Your task to perform on an android device: Go to accessibility settings Image 0: 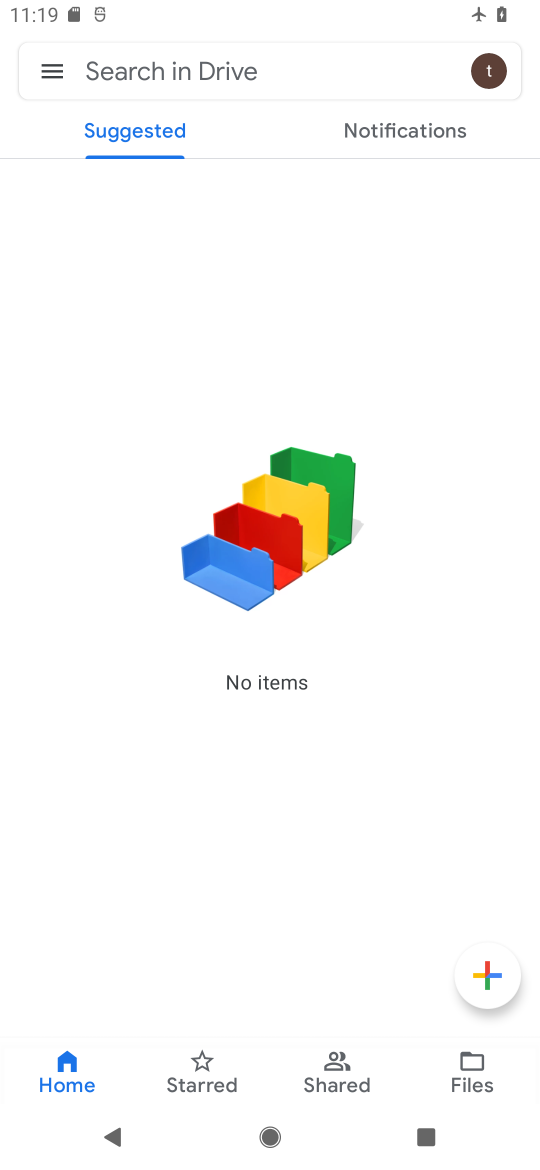
Step 0: press home button
Your task to perform on an android device: Go to accessibility settings Image 1: 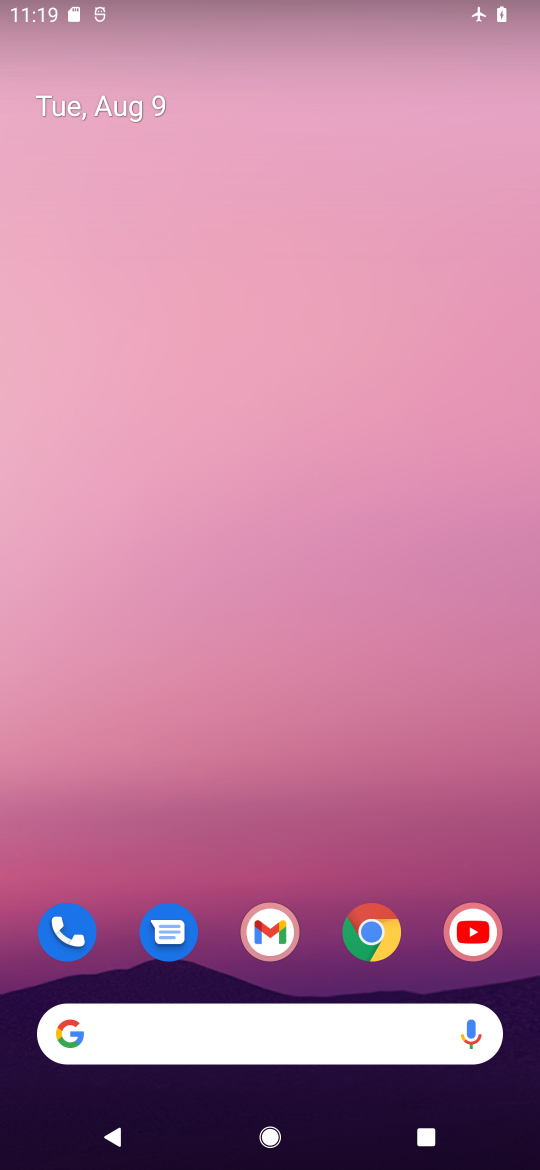
Step 1: drag from (209, 866) to (262, 2)
Your task to perform on an android device: Go to accessibility settings Image 2: 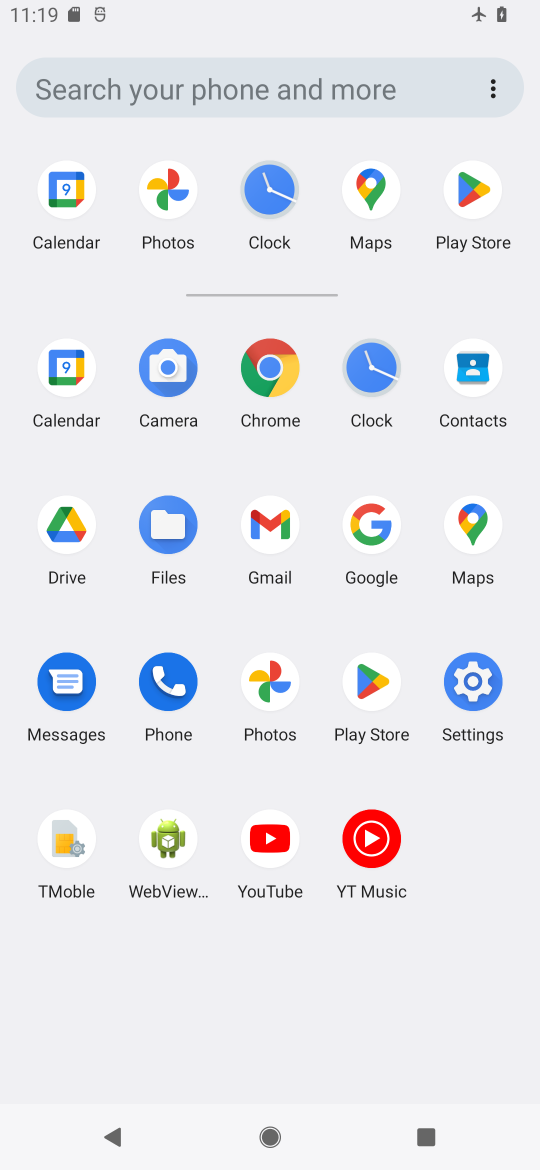
Step 2: click (466, 696)
Your task to perform on an android device: Go to accessibility settings Image 3: 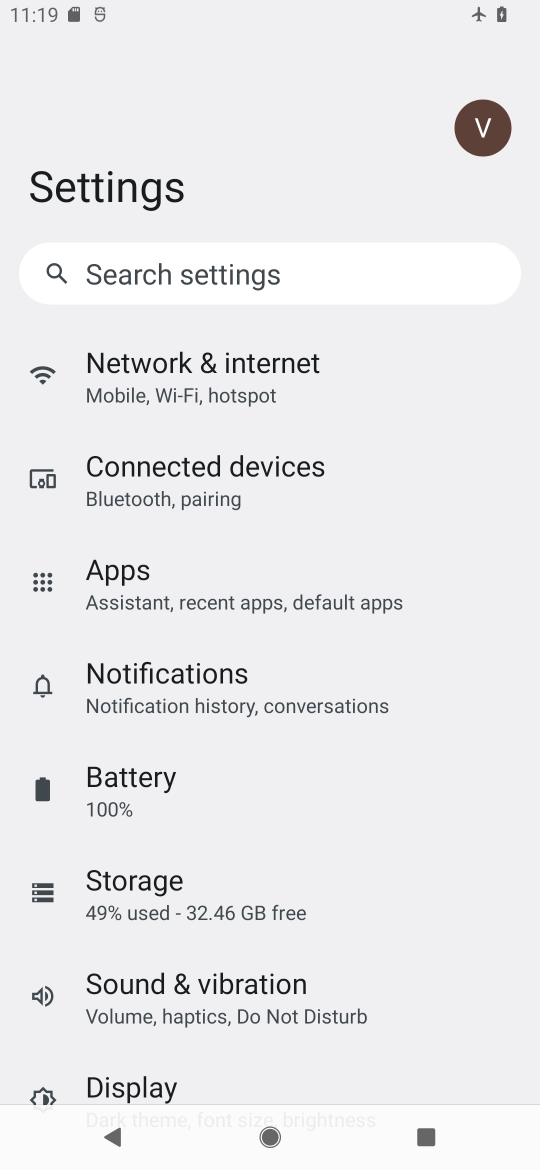
Step 3: drag from (178, 934) to (312, 292)
Your task to perform on an android device: Go to accessibility settings Image 4: 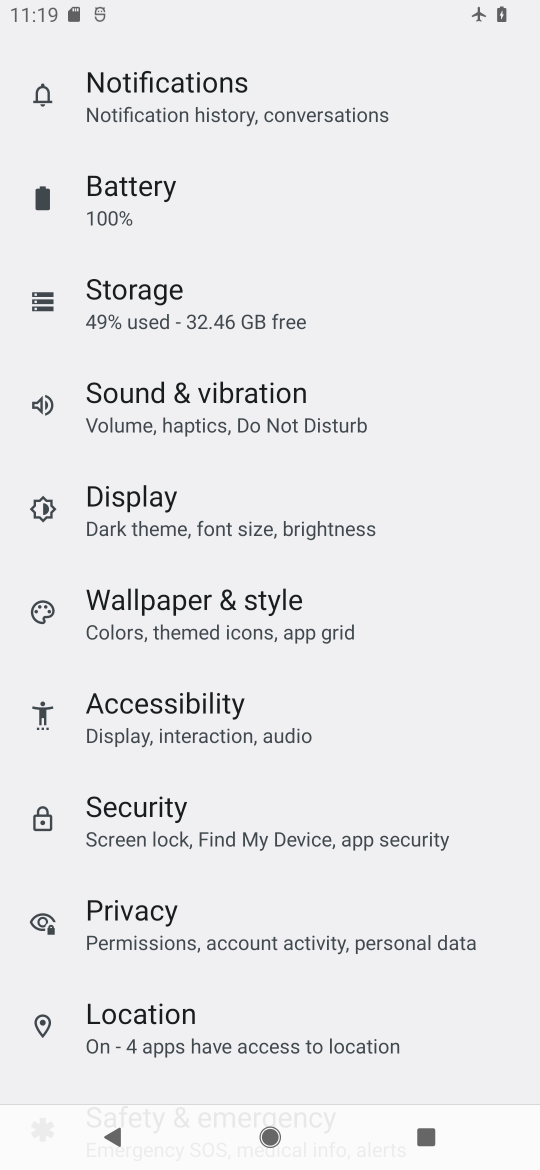
Step 4: click (200, 714)
Your task to perform on an android device: Go to accessibility settings Image 5: 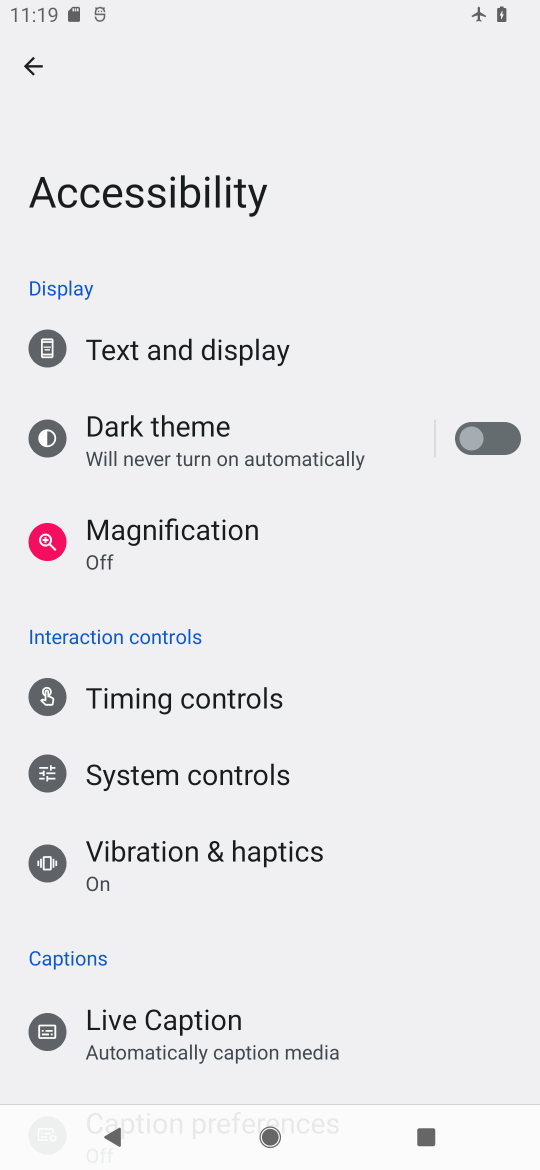
Step 5: task complete